Your task to perform on an android device: delete a single message in the gmail app Image 0: 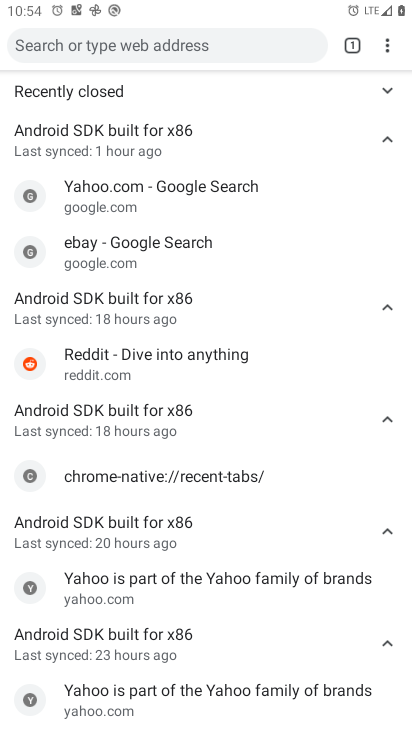
Step 0: press home button
Your task to perform on an android device: delete a single message in the gmail app Image 1: 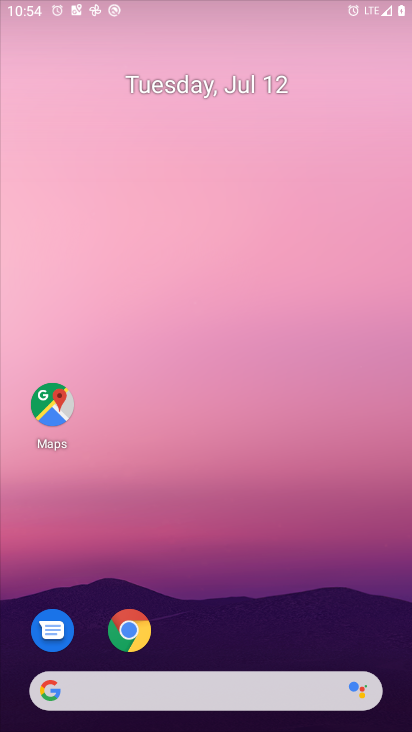
Step 1: drag from (278, 613) to (275, 0)
Your task to perform on an android device: delete a single message in the gmail app Image 2: 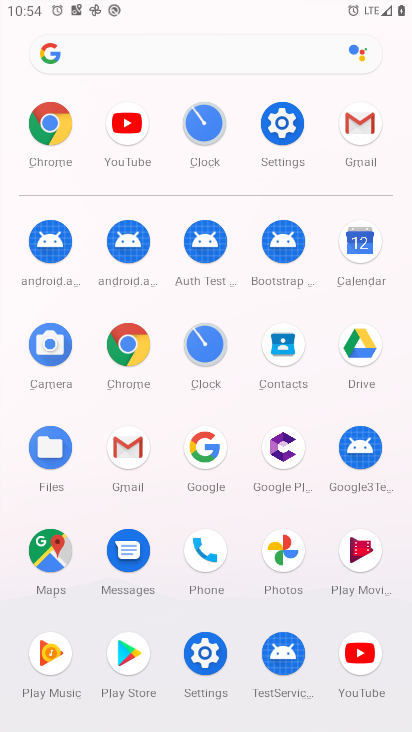
Step 2: click (353, 148)
Your task to perform on an android device: delete a single message in the gmail app Image 3: 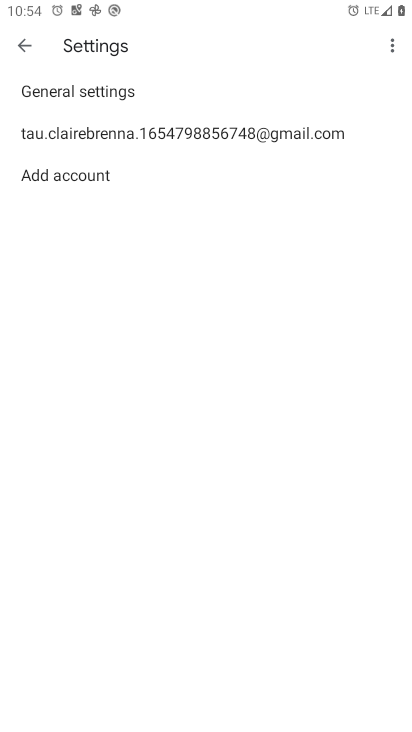
Step 3: click (25, 139)
Your task to perform on an android device: delete a single message in the gmail app Image 4: 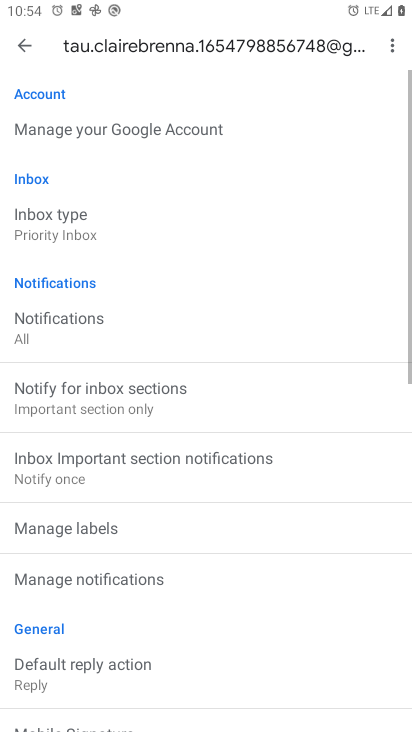
Step 4: click (26, 47)
Your task to perform on an android device: delete a single message in the gmail app Image 5: 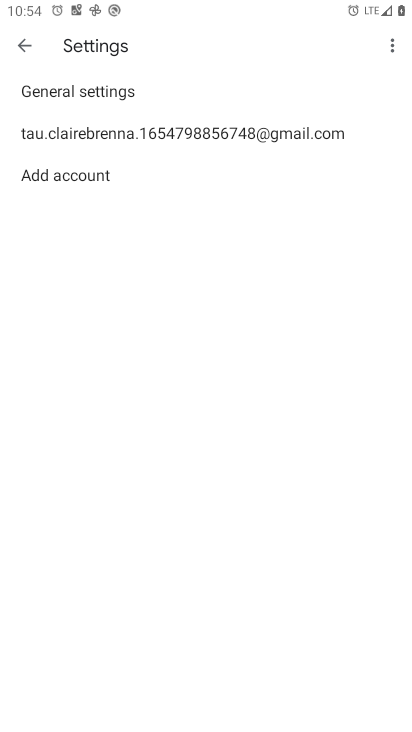
Step 5: click (26, 47)
Your task to perform on an android device: delete a single message in the gmail app Image 6: 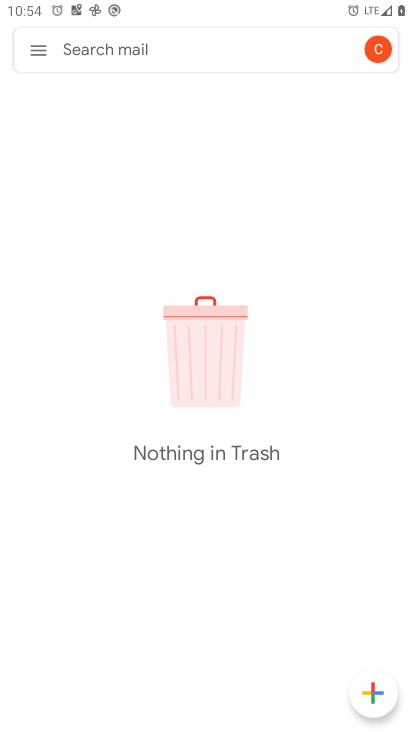
Step 6: click (26, 47)
Your task to perform on an android device: delete a single message in the gmail app Image 7: 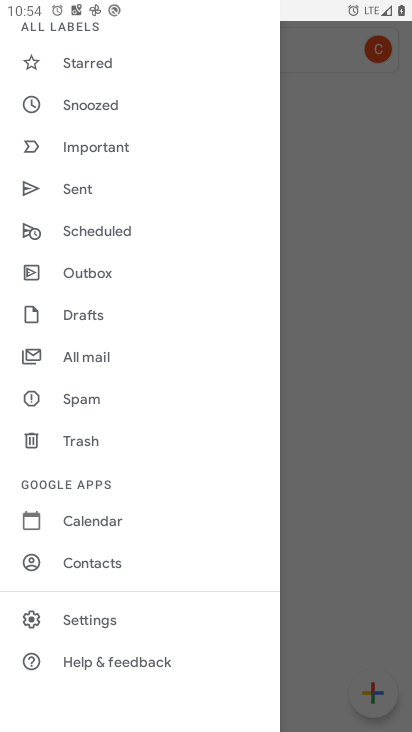
Step 7: click (86, 357)
Your task to perform on an android device: delete a single message in the gmail app Image 8: 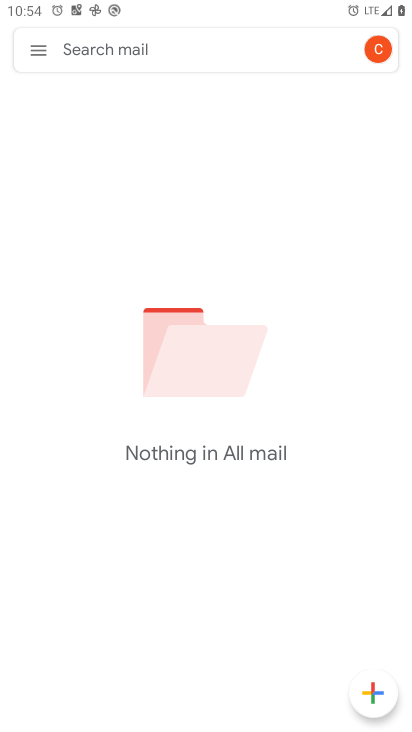
Step 8: task complete